Your task to perform on an android device: turn off javascript in the chrome app Image 0: 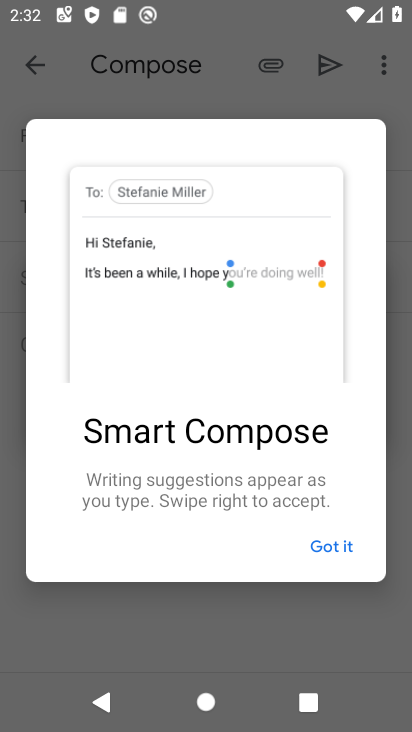
Step 0: press home button
Your task to perform on an android device: turn off javascript in the chrome app Image 1: 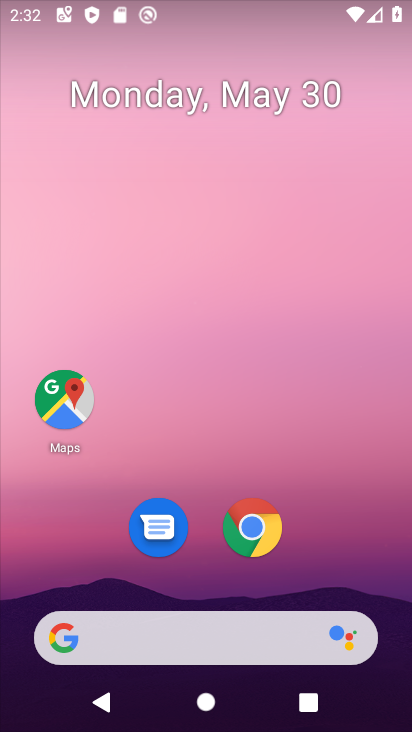
Step 1: click (248, 525)
Your task to perform on an android device: turn off javascript in the chrome app Image 2: 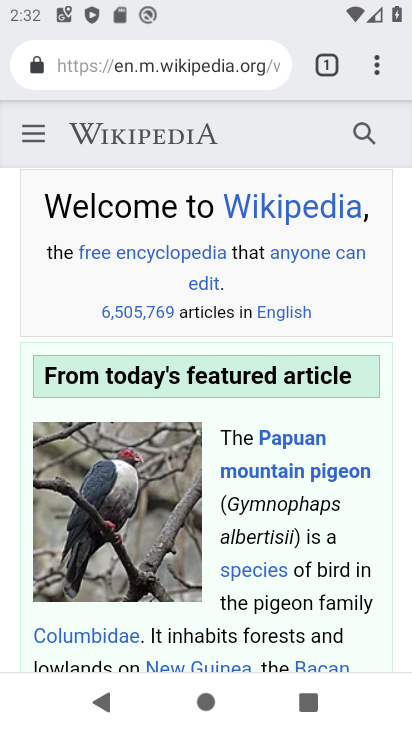
Step 2: drag from (378, 64) to (124, 565)
Your task to perform on an android device: turn off javascript in the chrome app Image 3: 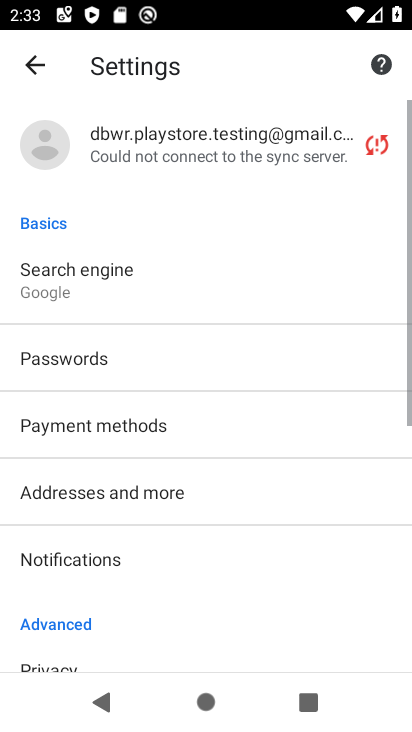
Step 3: drag from (214, 611) to (212, 225)
Your task to perform on an android device: turn off javascript in the chrome app Image 4: 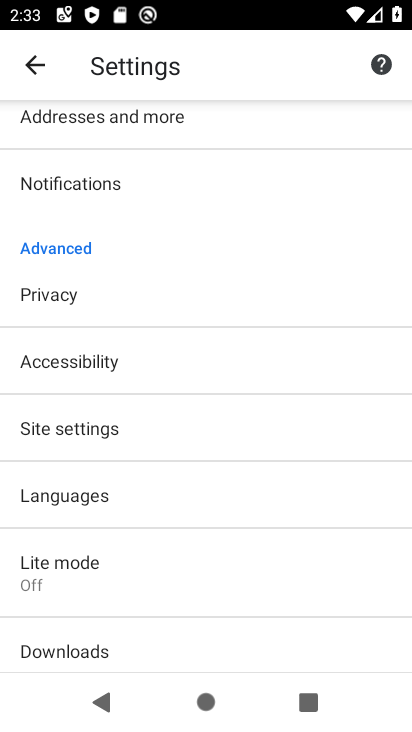
Step 4: click (104, 425)
Your task to perform on an android device: turn off javascript in the chrome app Image 5: 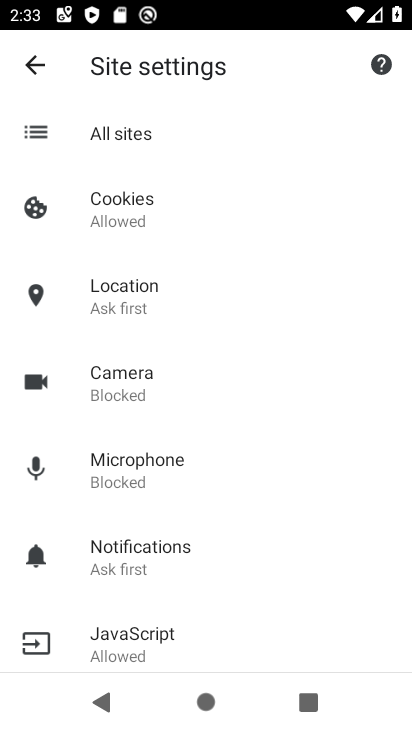
Step 5: click (124, 642)
Your task to perform on an android device: turn off javascript in the chrome app Image 6: 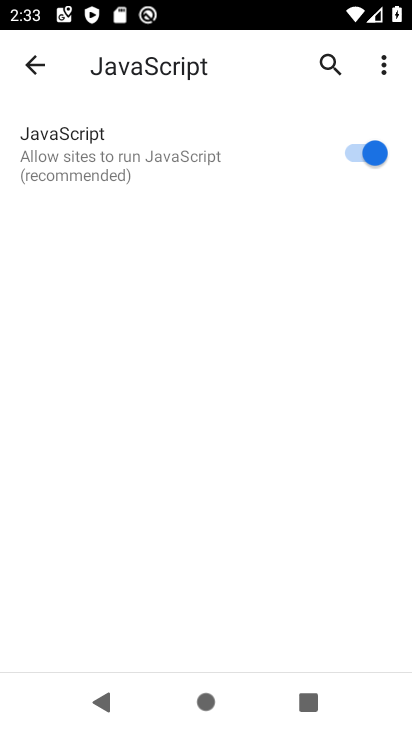
Step 6: click (368, 151)
Your task to perform on an android device: turn off javascript in the chrome app Image 7: 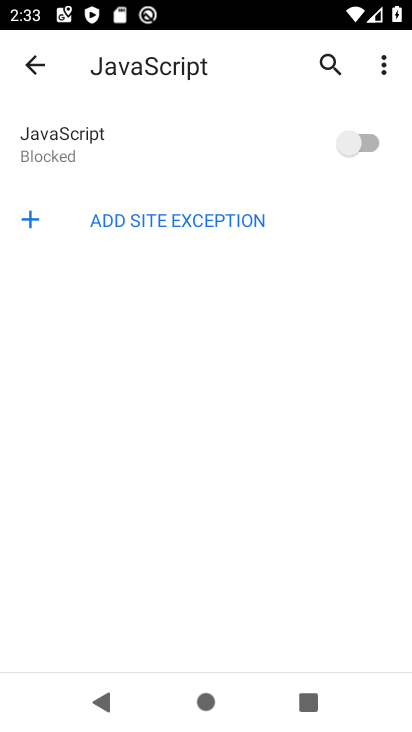
Step 7: task complete